Your task to perform on an android device: Go to CNN.com Image 0: 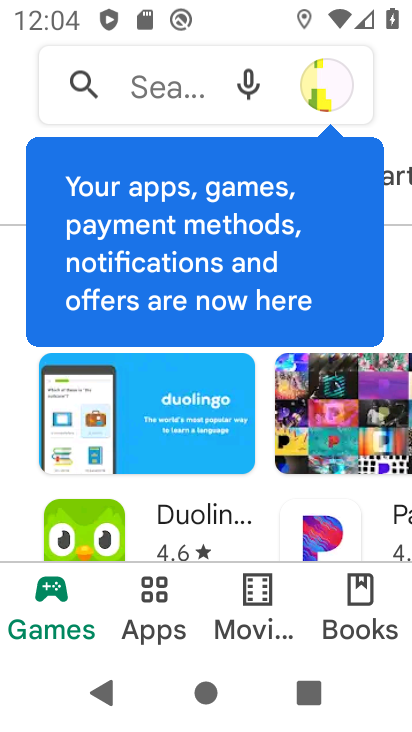
Step 0: press home button
Your task to perform on an android device: Go to CNN.com Image 1: 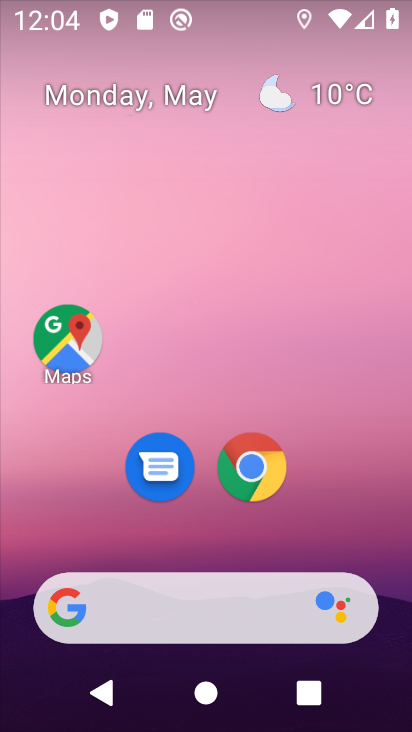
Step 1: drag from (388, 530) to (338, 165)
Your task to perform on an android device: Go to CNN.com Image 2: 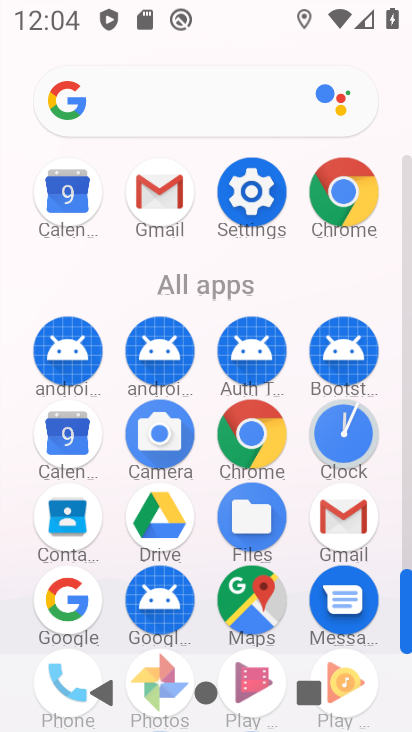
Step 2: click (273, 416)
Your task to perform on an android device: Go to CNN.com Image 3: 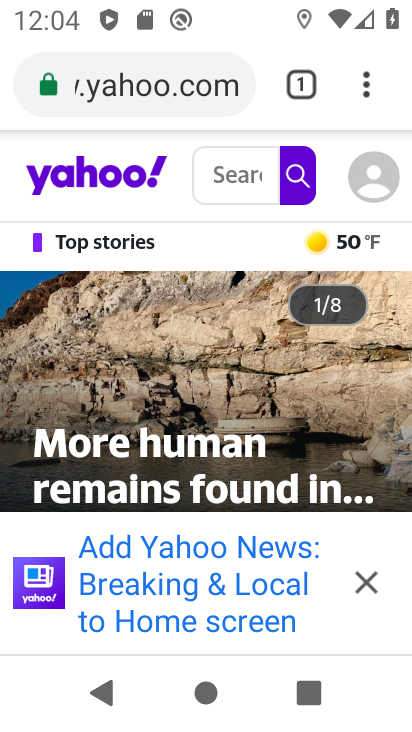
Step 3: click (210, 97)
Your task to perform on an android device: Go to CNN.com Image 4: 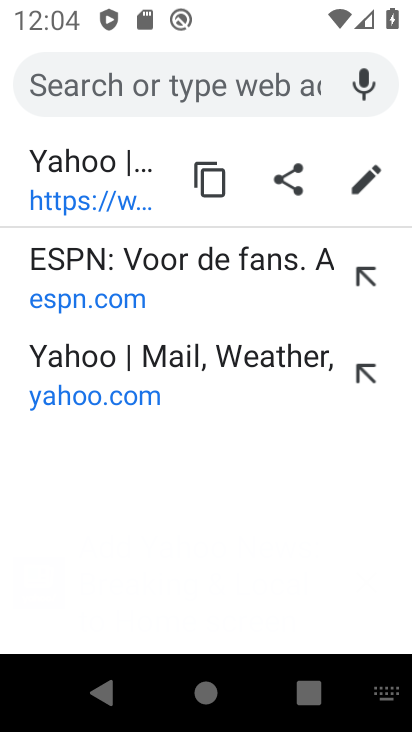
Step 4: type "cnn.com"
Your task to perform on an android device: Go to CNN.com Image 5: 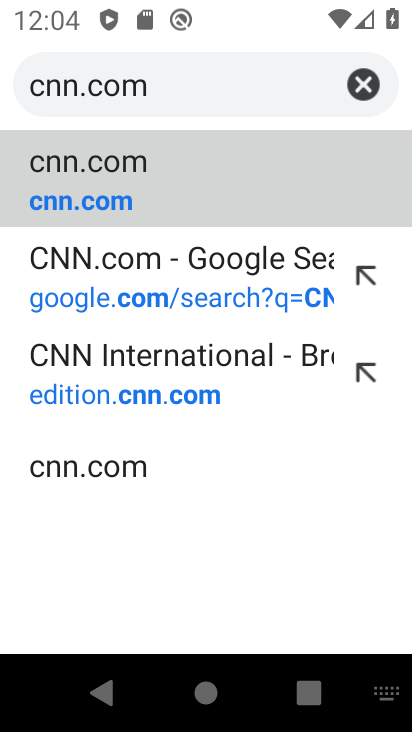
Step 5: click (117, 199)
Your task to perform on an android device: Go to CNN.com Image 6: 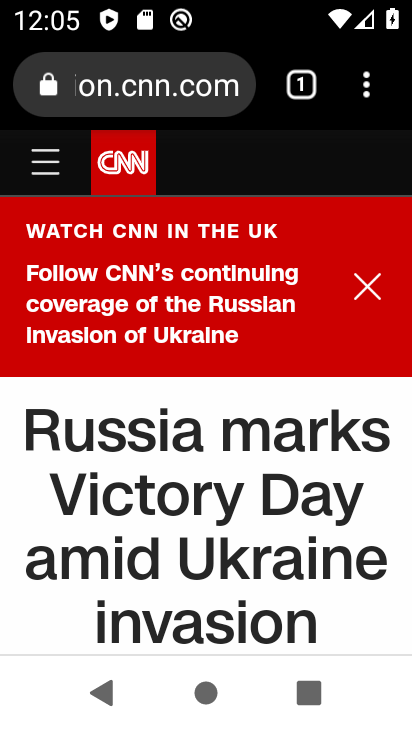
Step 6: task complete